Your task to perform on an android device: Open Google Maps and go to "Timeline" Image 0: 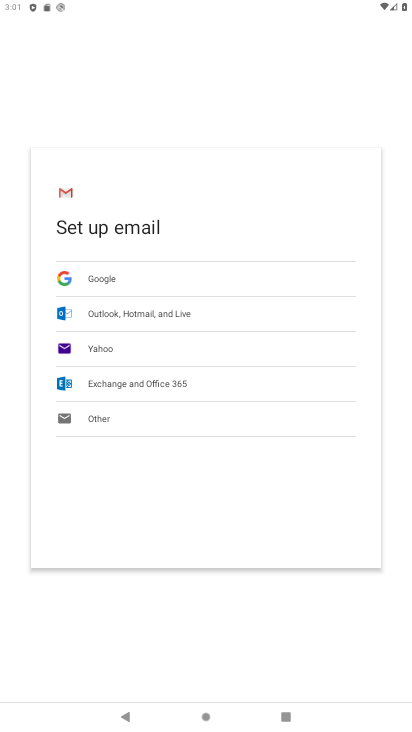
Step 0: press home button
Your task to perform on an android device: Open Google Maps and go to "Timeline" Image 1: 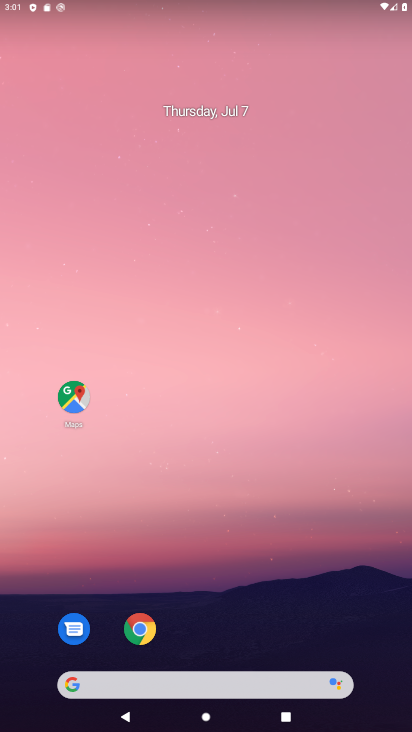
Step 1: click (75, 396)
Your task to perform on an android device: Open Google Maps and go to "Timeline" Image 2: 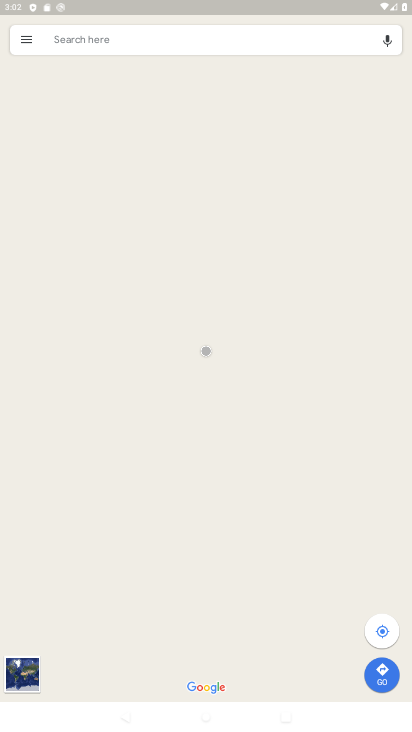
Step 2: click (21, 43)
Your task to perform on an android device: Open Google Maps and go to "Timeline" Image 3: 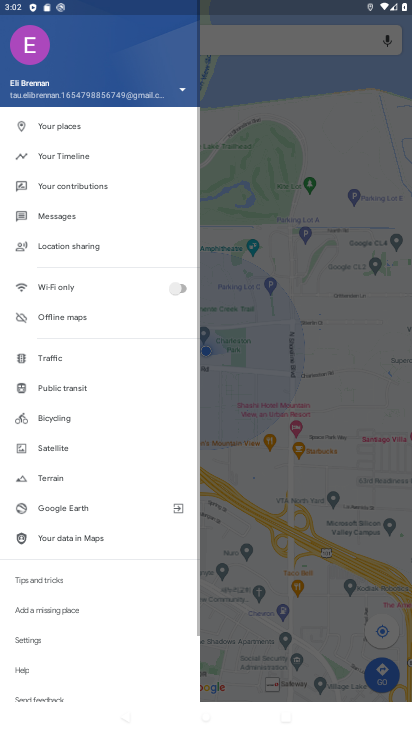
Step 3: click (48, 153)
Your task to perform on an android device: Open Google Maps and go to "Timeline" Image 4: 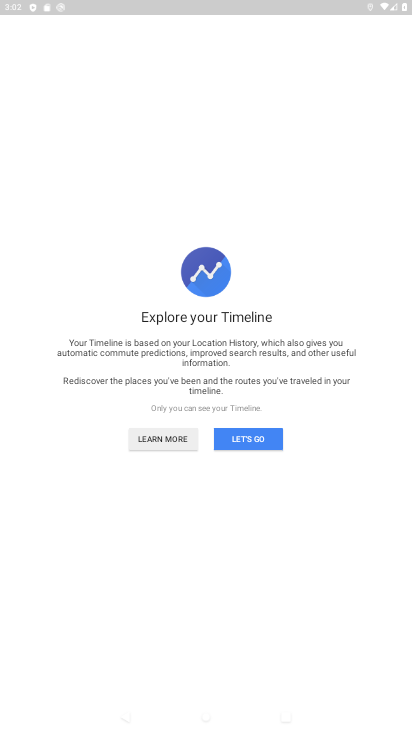
Step 4: task complete